Your task to perform on an android device: open a bookmark in the chrome app Image 0: 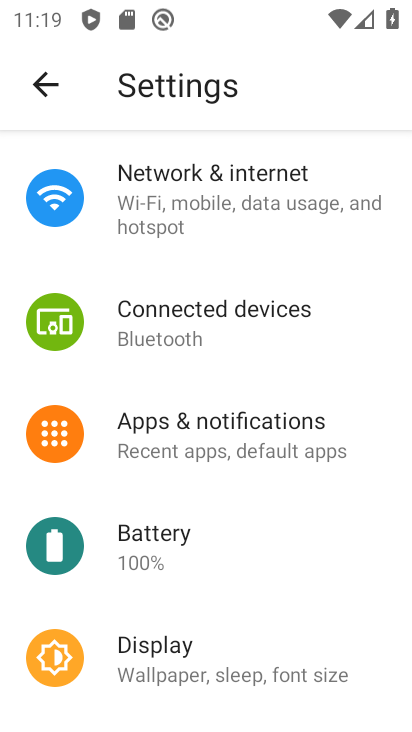
Step 0: press home button
Your task to perform on an android device: open a bookmark in the chrome app Image 1: 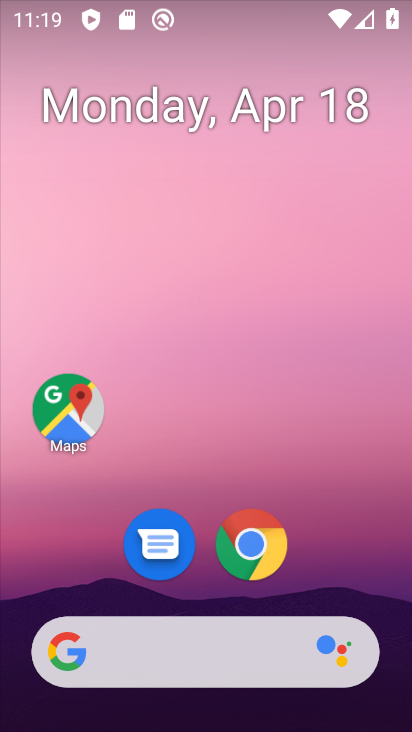
Step 1: click (253, 552)
Your task to perform on an android device: open a bookmark in the chrome app Image 2: 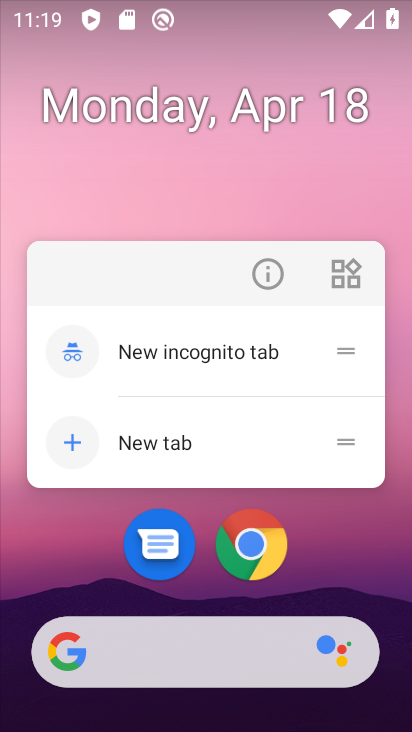
Step 2: click (264, 553)
Your task to perform on an android device: open a bookmark in the chrome app Image 3: 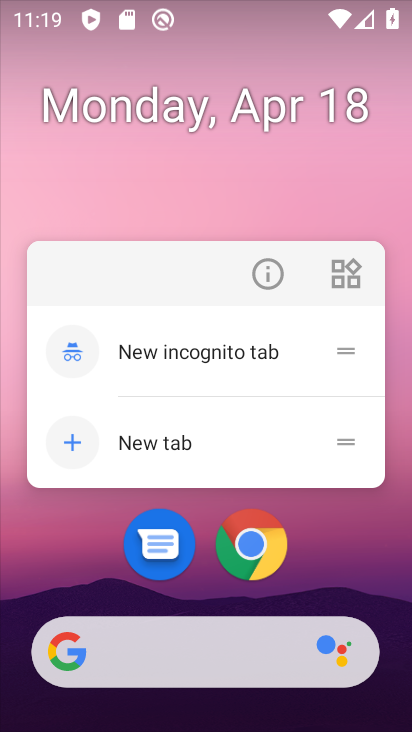
Step 3: click (250, 546)
Your task to perform on an android device: open a bookmark in the chrome app Image 4: 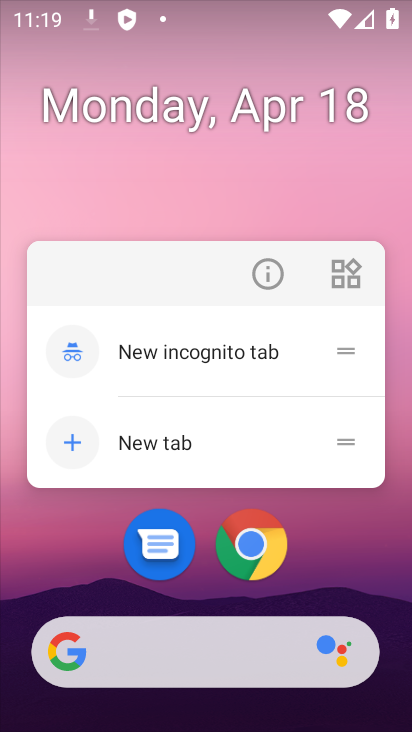
Step 4: click (250, 546)
Your task to perform on an android device: open a bookmark in the chrome app Image 5: 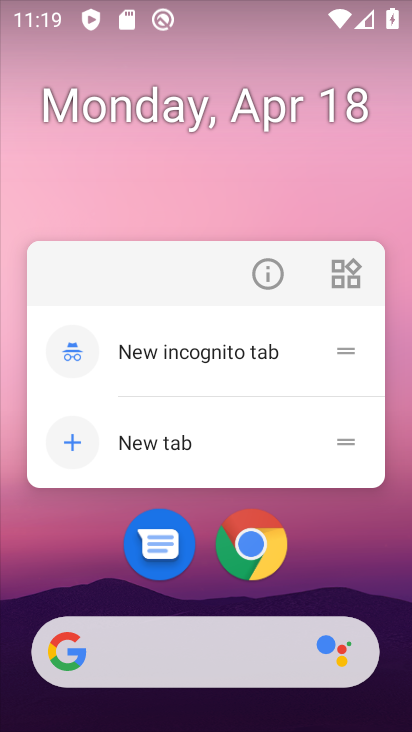
Step 5: click (250, 546)
Your task to perform on an android device: open a bookmark in the chrome app Image 6: 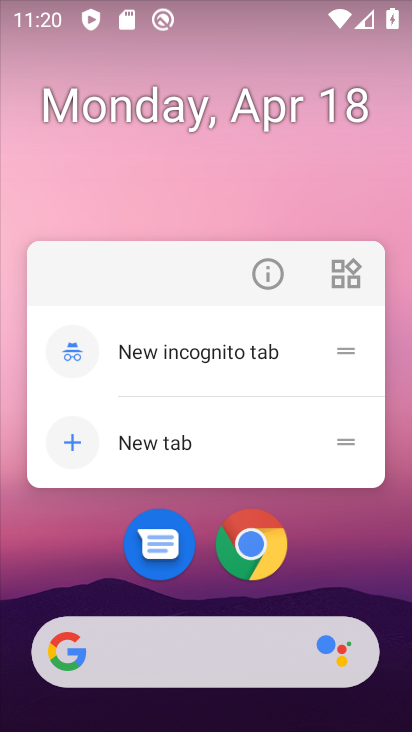
Step 6: click (250, 546)
Your task to perform on an android device: open a bookmark in the chrome app Image 7: 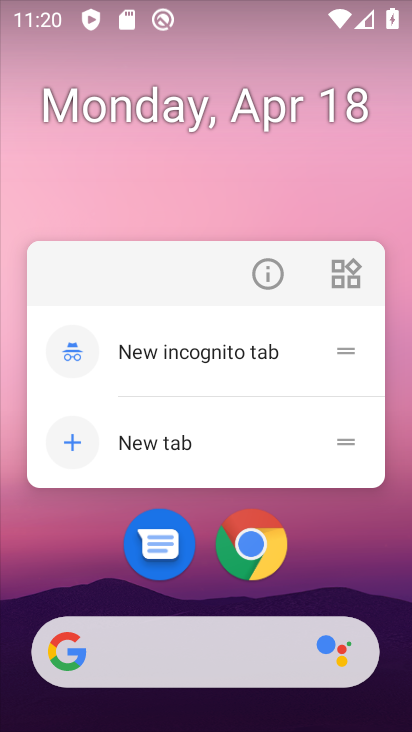
Step 7: click (348, 539)
Your task to perform on an android device: open a bookmark in the chrome app Image 8: 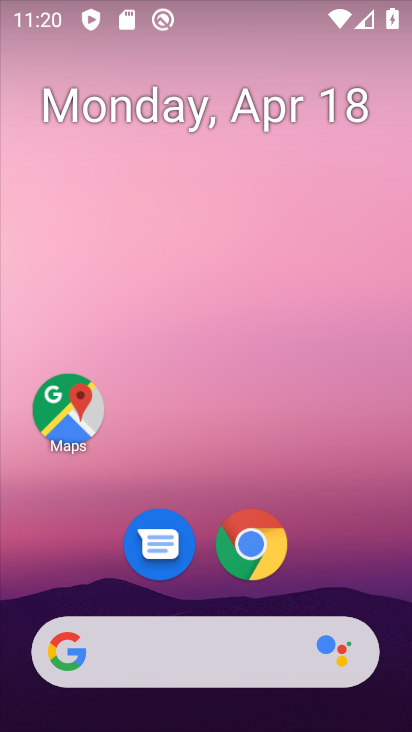
Step 8: click (251, 550)
Your task to perform on an android device: open a bookmark in the chrome app Image 9: 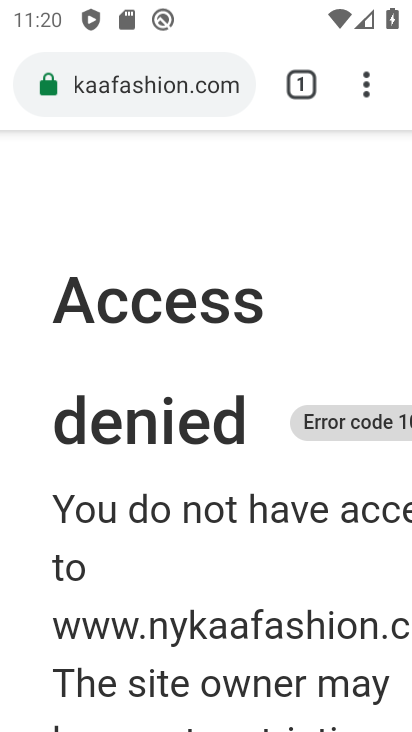
Step 9: click (369, 88)
Your task to perform on an android device: open a bookmark in the chrome app Image 10: 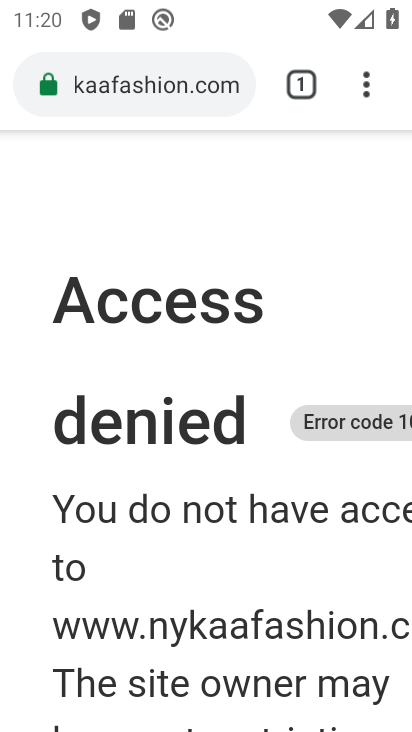
Step 10: click (369, 88)
Your task to perform on an android device: open a bookmark in the chrome app Image 11: 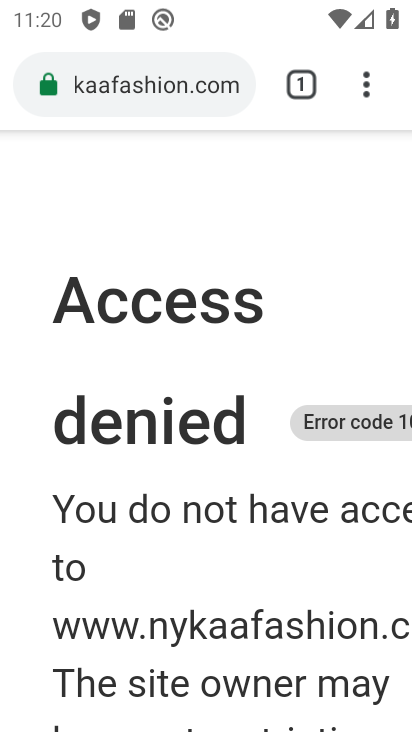
Step 11: click (368, 83)
Your task to perform on an android device: open a bookmark in the chrome app Image 12: 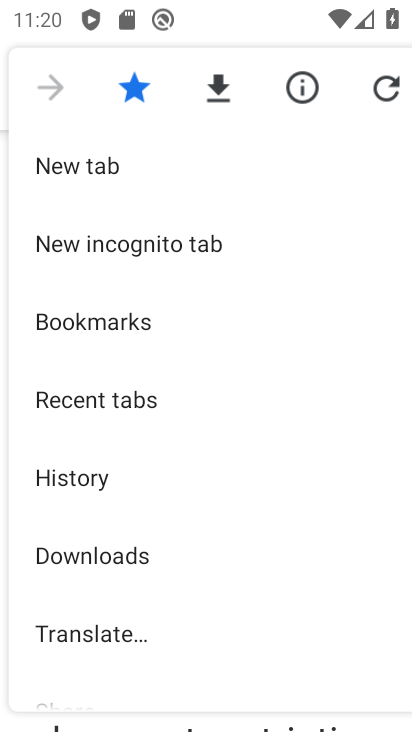
Step 12: click (123, 328)
Your task to perform on an android device: open a bookmark in the chrome app Image 13: 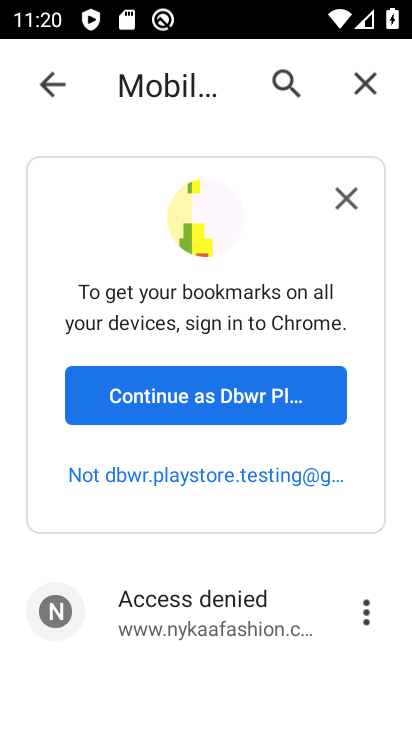
Step 13: click (219, 413)
Your task to perform on an android device: open a bookmark in the chrome app Image 14: 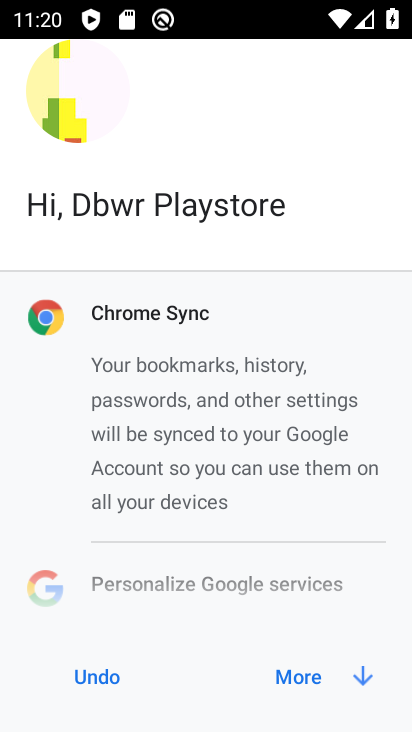
Step 14: click (285, 672)
Your task to perform on an android device: open a bookmark in the chrome app Image 15: 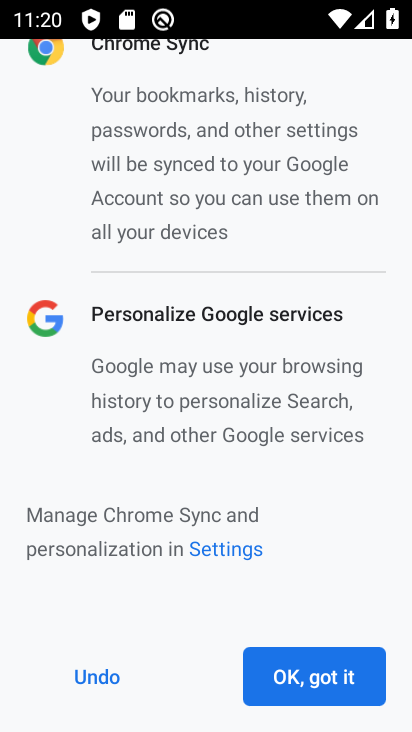
Step 15: click (285, 672)
Your task to perform on an android device: open a bookmark in the chrome app Image 16: 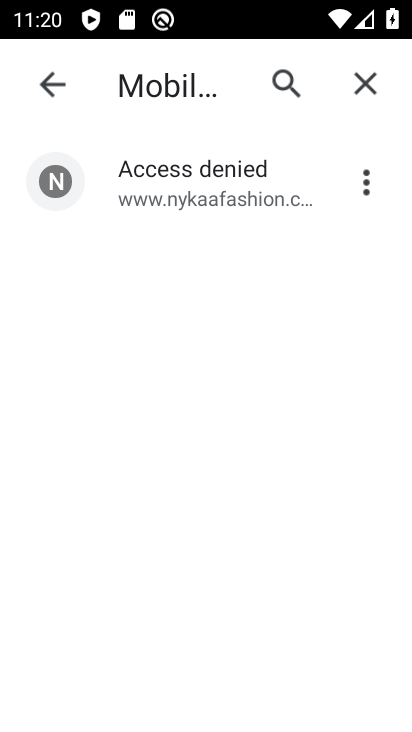
Step 16: click (240, 201)
Your task to perform on an android device: open a bookmark in the chrome app Image 17: 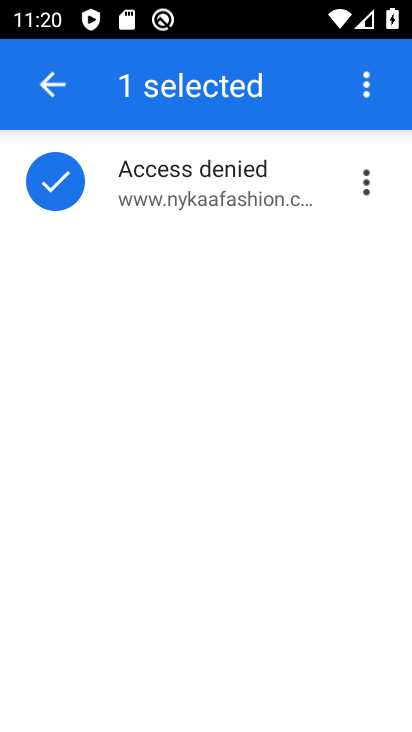
Step 17: click (174, 193)
Your task to perform on an android device: open a bookmark in the chrome app Image 18: 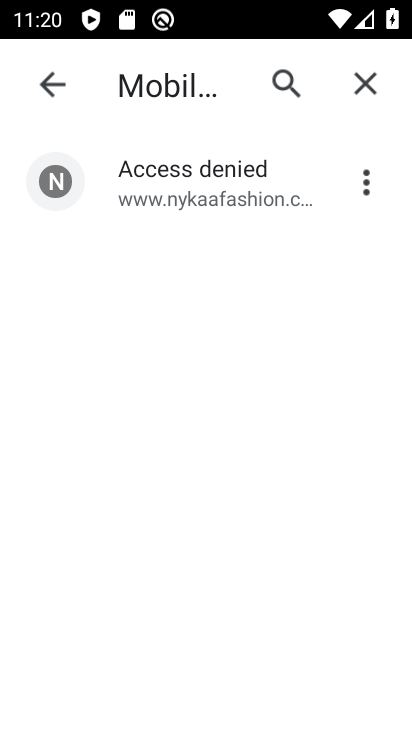
Step 18: click (129, 175)
Your task to perform on an android device: open a bookmark in the chrome app Image 19: 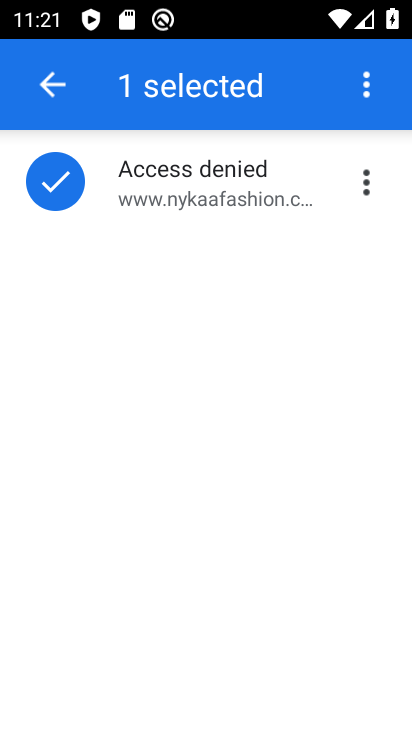
Step 19: click (129, 175)
Your task to perform on an android device: open a bookmark in the chrome app Image 20: 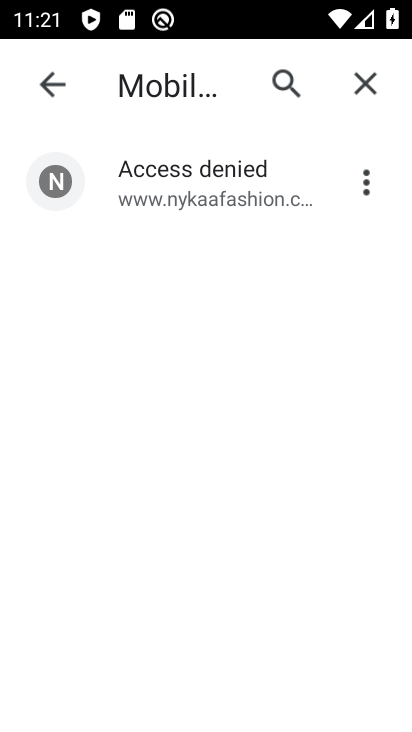
Step 20: click (148, 198)
Your task to perform on an android device: open a bookmark in the chrome app Image 21: 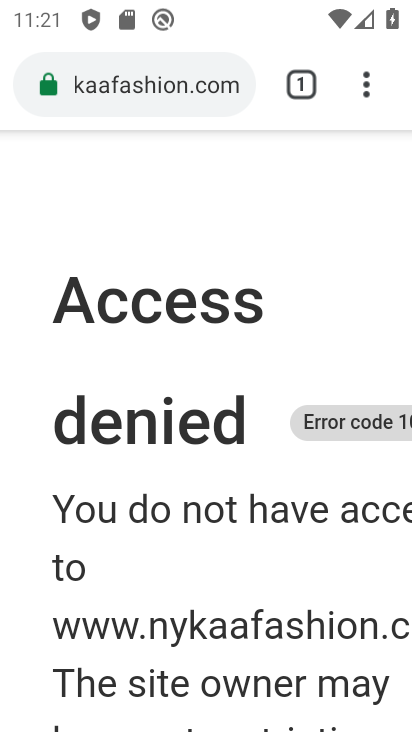
Step 21: task complete